Your task to perform on an android device: Go to Amazon Image 0: 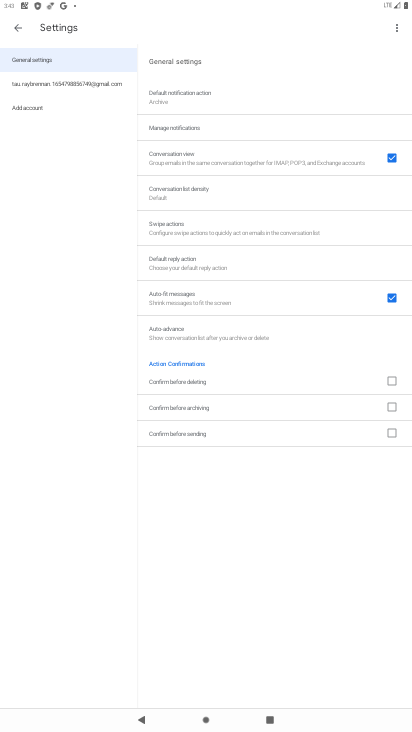
Step 0: press home button
Your task to perform on an android device: Go to Amazon Image 1: 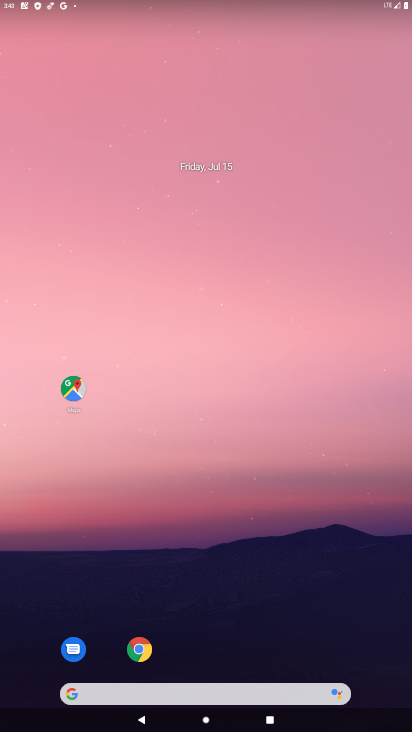
Step 1: click (151, 656)
Your task to perform on an android device: Go to Amazon Image 2: 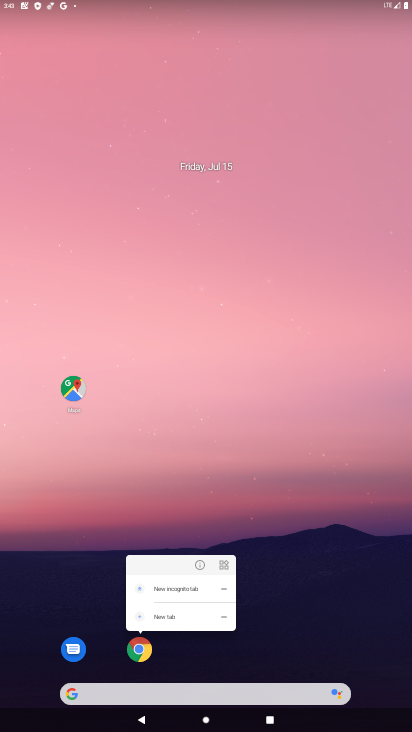
Step 2: click (149, 654)
Your task to perform on an android device: Go to Amazon Image 3: 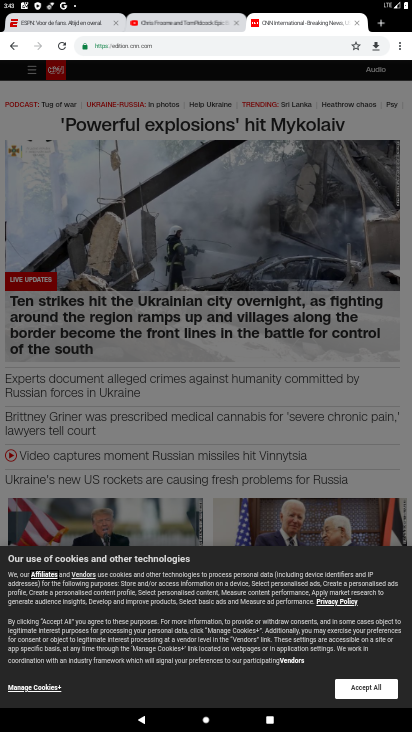
Step 3: click (379, 24)
Your task to perform on an android device: Go to Amazon Image 4: 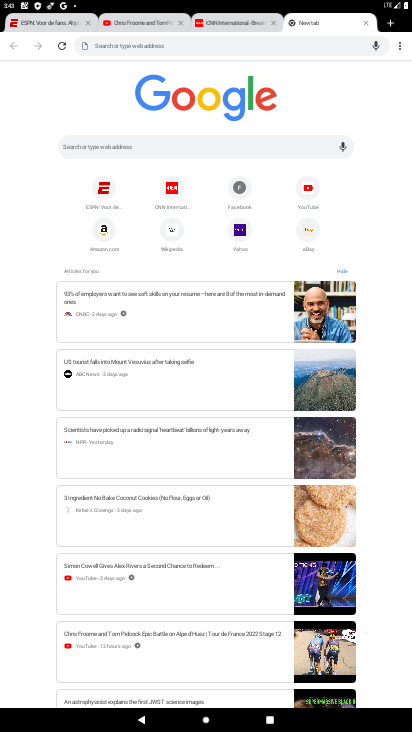
Step 4: click (108, 235)
Your task to perform on an android device: Go to Amazon Image 5: 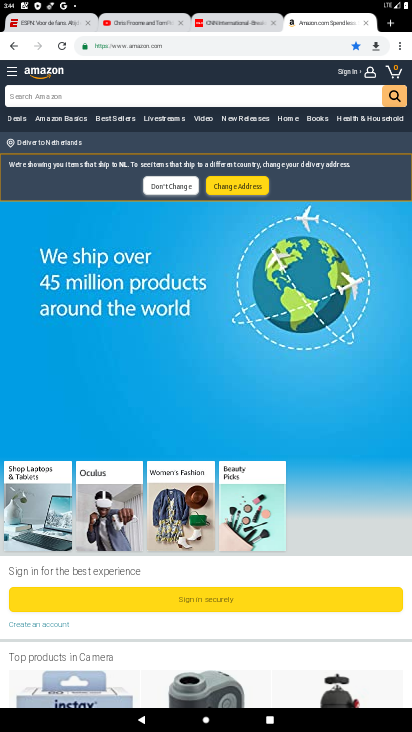
Step 5: task complete